Your task to perform on an android device: turn off notifications in google photos Image 0: 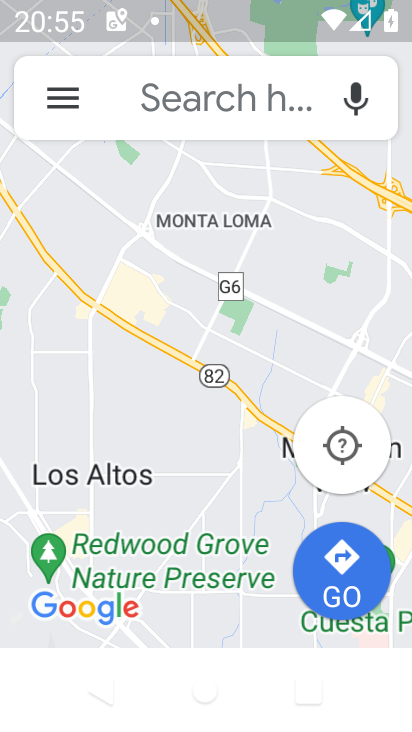
Step 0: press home button
Your task to perform on an android device: turn off notifications in google photos Image 1: 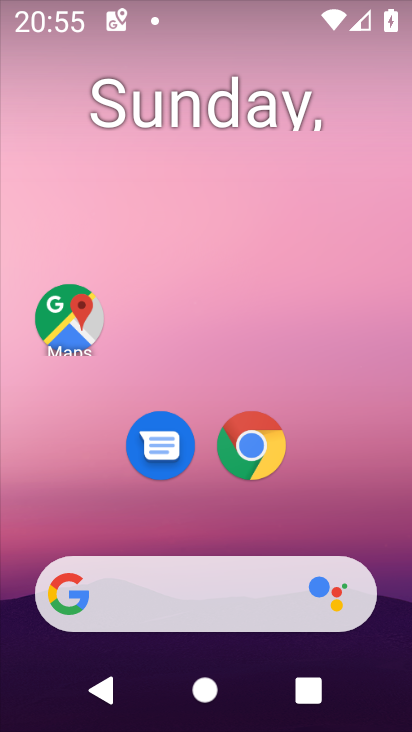
Step 1: drag from (1, 688) to (227, 132)
Your task to perform on an android device: turn off notifications in google photos Image 2: 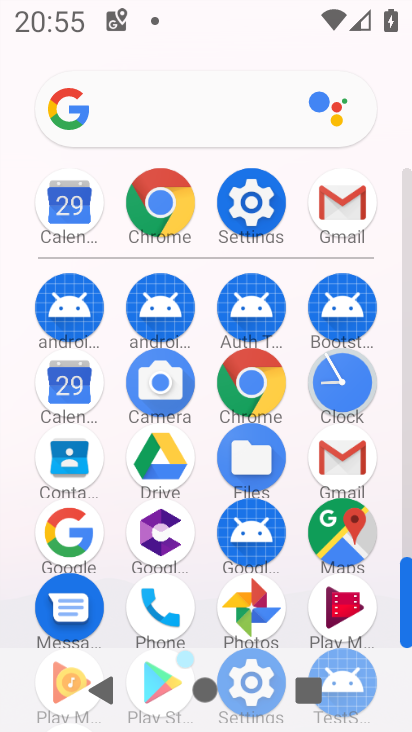
Step 2: click (237, 203)
Your task to perform on an android device: turn off notifications in google photos Image 3: 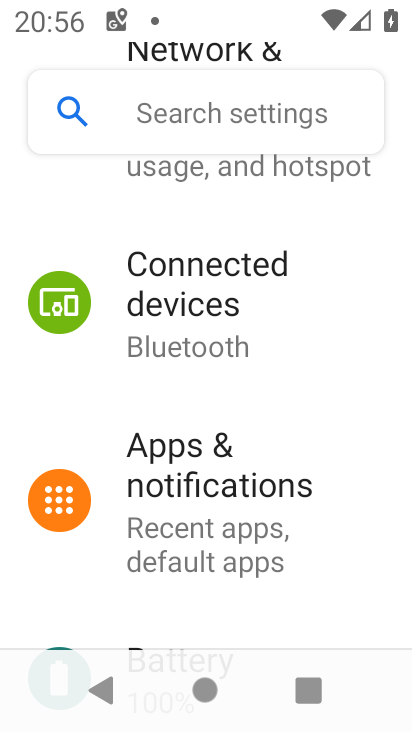
Step 3: click (205, 467)
Your task to perform on an android device: turn off notifications in google photos Image 4: 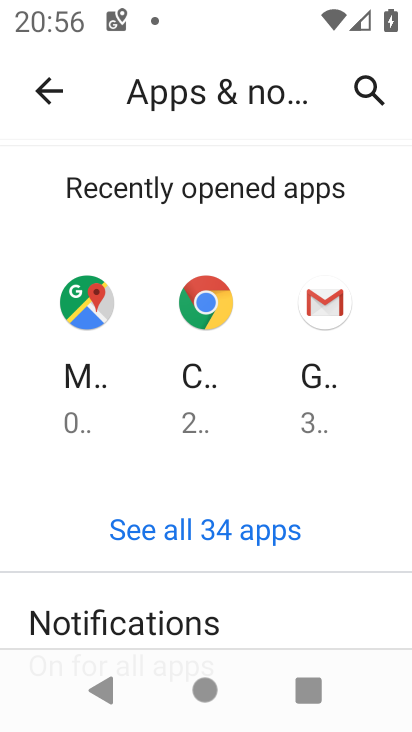
Step 4: press back button
Your task to perform on an android device: turn off notifications in google photos Image 5: 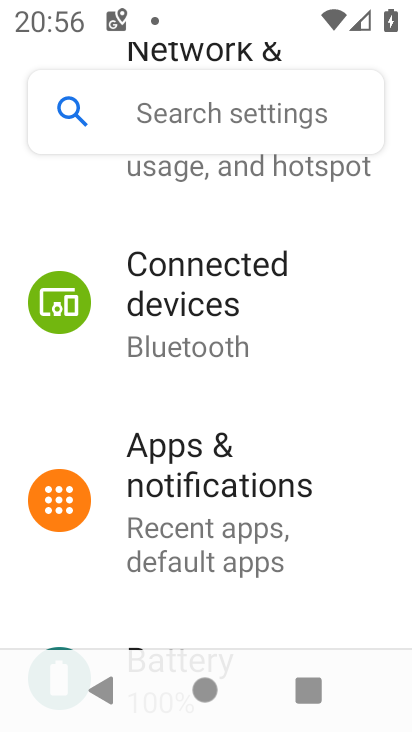
Step 5: press back button
Your task to perform on an android device: turn off notifications in google photos Image 6: 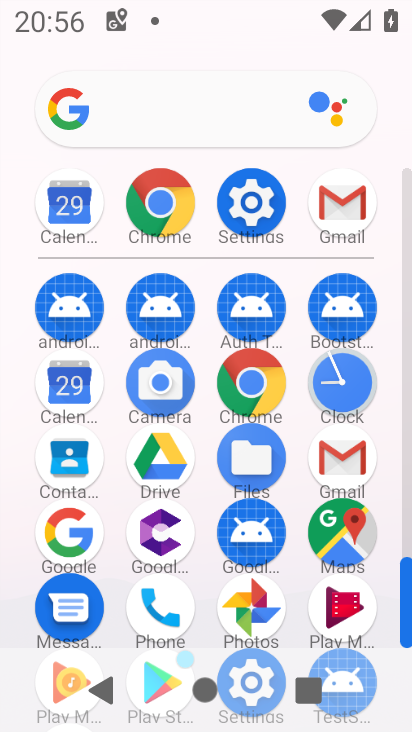
Step 6: click (263, 591)
Your task to perform on an android device: turn off notifications in google photos Image 7: 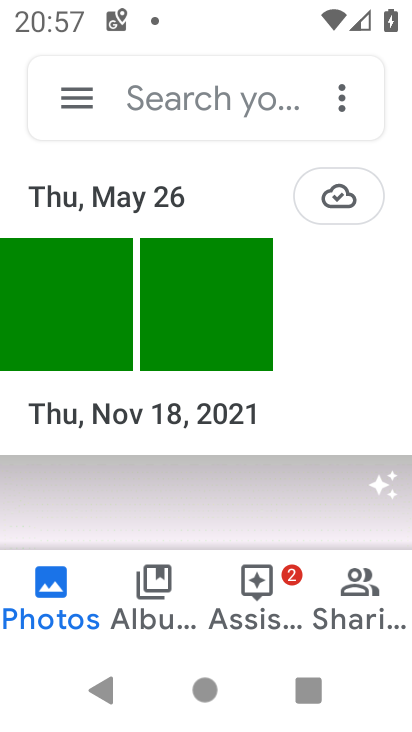
Step 7: click (78, 98)
Your task to perform on an android device: turn off notifications in google photos Image 8: 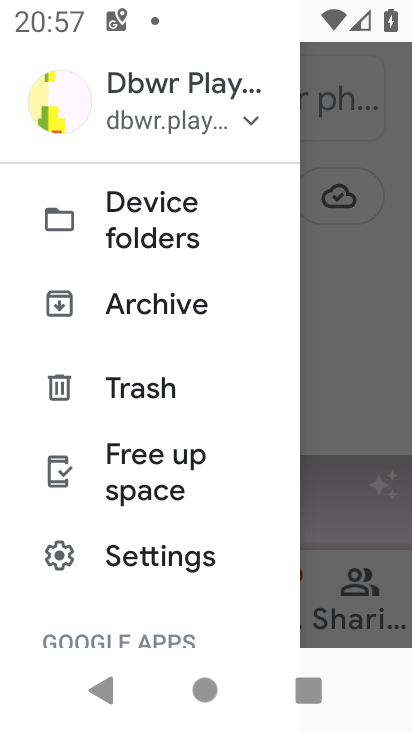
Step 8: click (83, 552)
Your task to perform on an android device: turn off notifications in google photos Image 9: 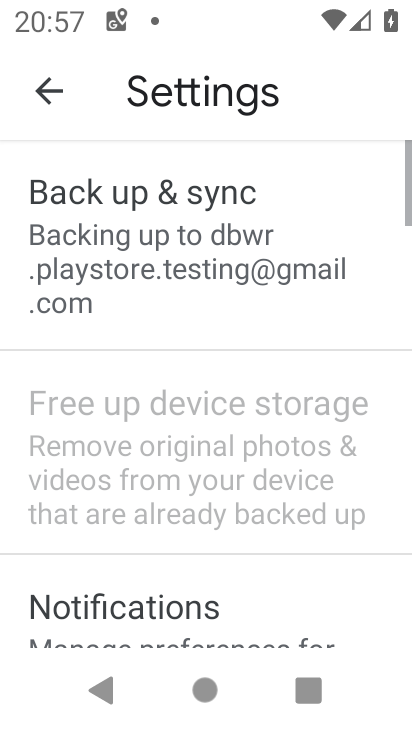
Step 9: click (296, 408)
Your task to perform on an android device: turn off notifications in google photos Image 10: 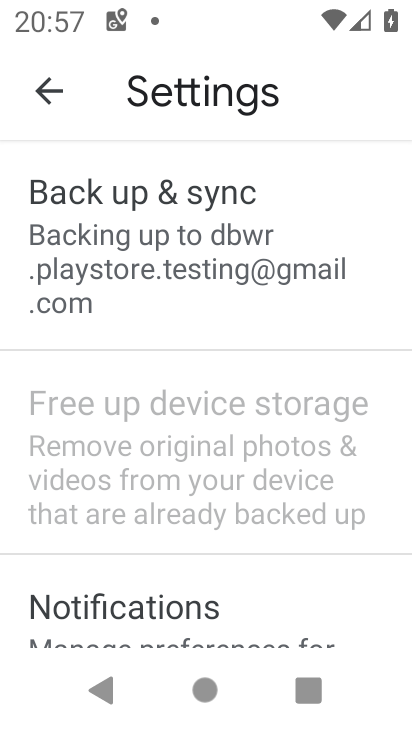
Step 10: drag from (15, 611) to (264, 219)
Your task to perform on an android device: turn off notifications in google photos Image 11: 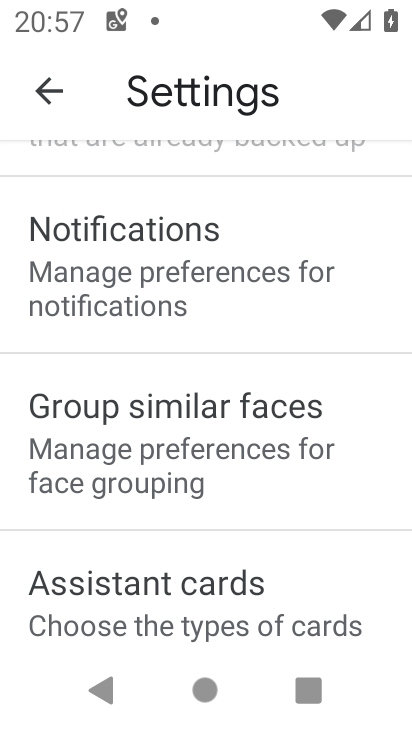
Step 11: click (180, 264)
Your task to perform on an android device: turn off notifications in google photos Image 12: 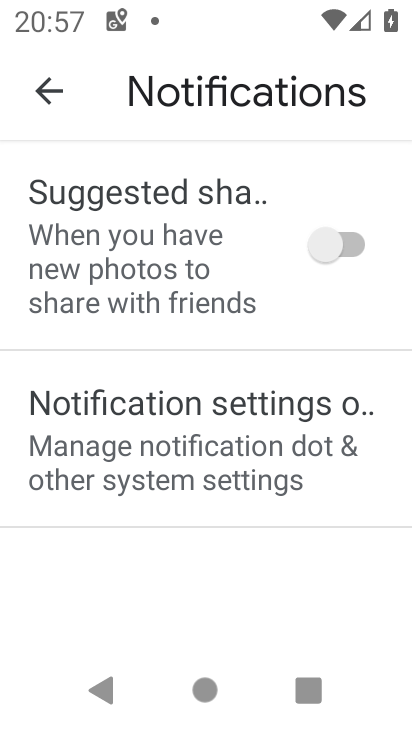
Step 12: task complete